Your task to perform on an android device: Open Google Chrome and click the shortcut for Amazon.com Image 0: 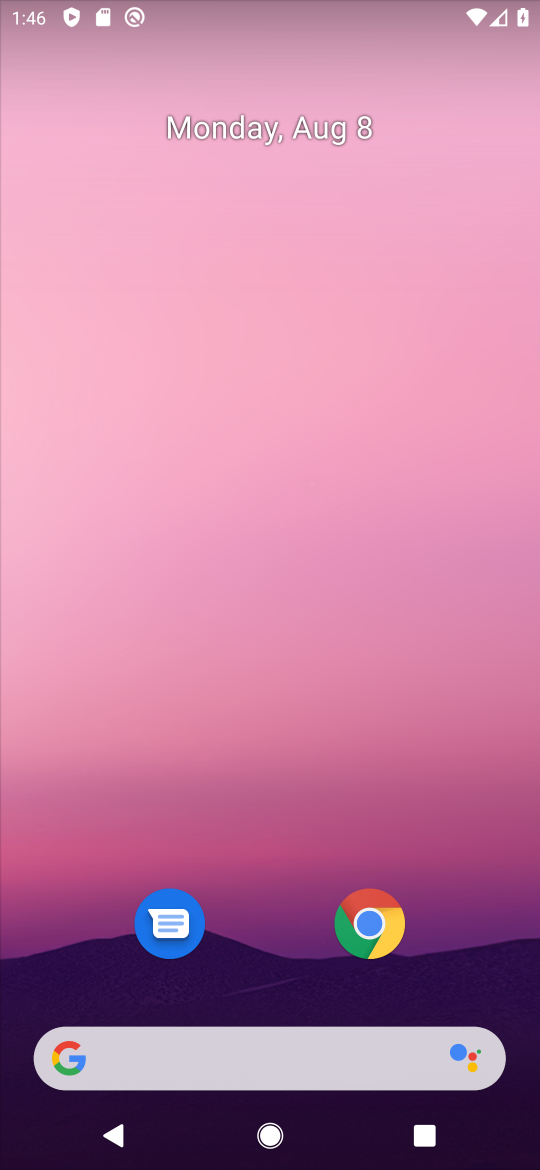
Step 0: drag from (319, 716) to (185, 55)
Your task to perform on an android device: Open Google Chrome and click the shortcut for Amazon.com Image 1: 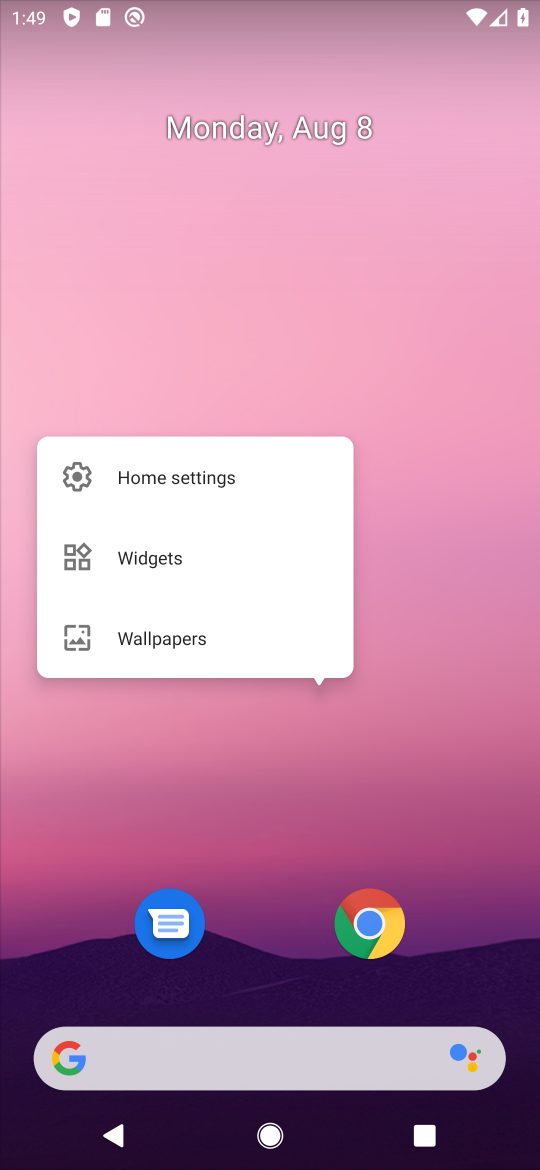
Step 1: click (387, 725)
Your task to perform on an android device: Open Google Chrome and click the shortcut for Amazon.com Image 2: 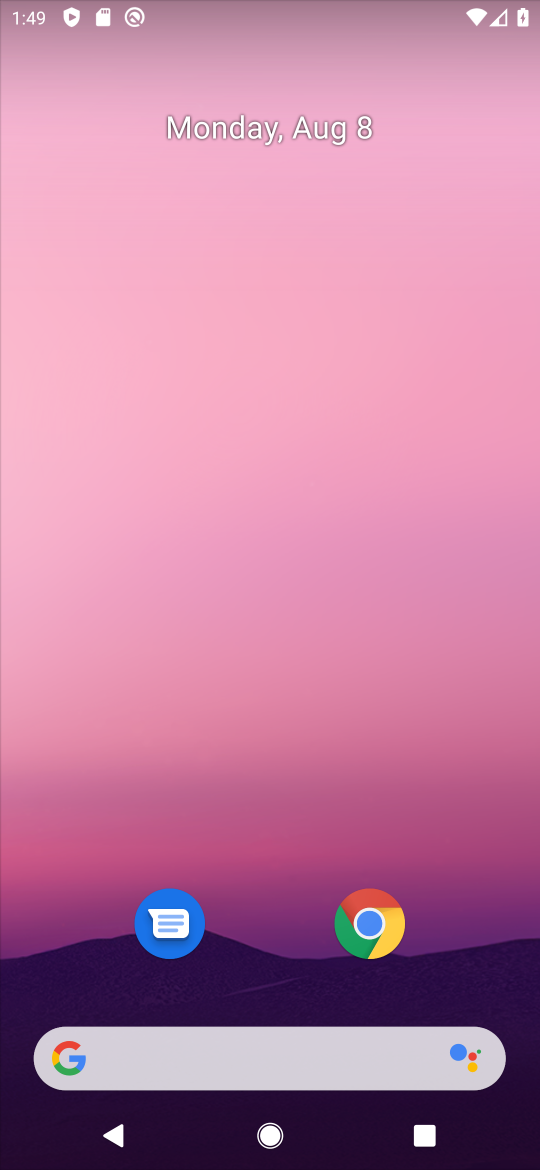
Step 2: drag from (285, 704) to (256, 244)
Your task to perform on an android device: Open Google Chrome and click the shortcut for Amazon.com Image 3: 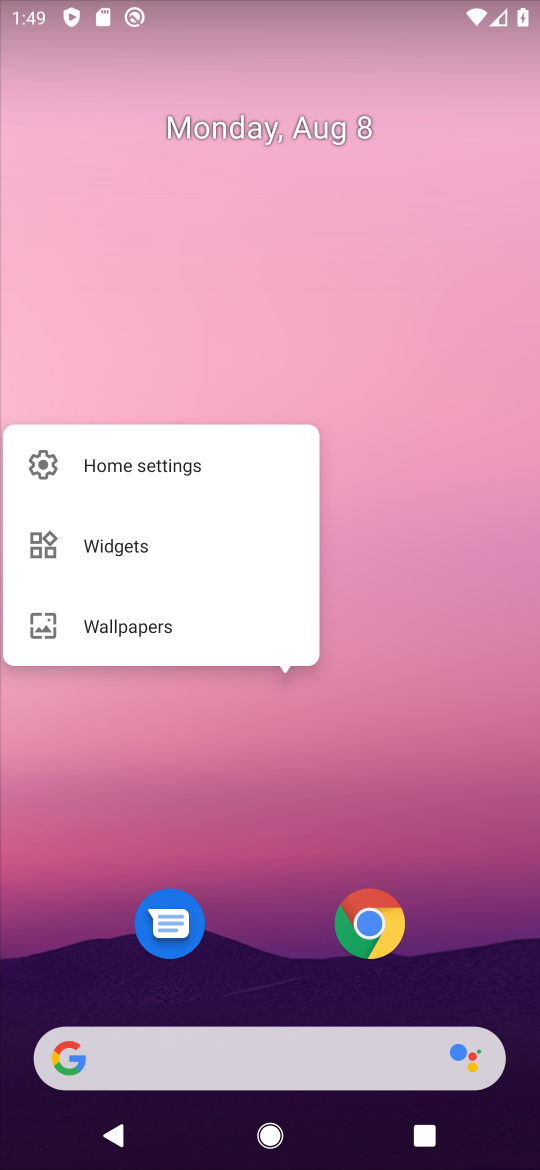
Step 3: click (421, 513)
Your task to perform on an android device: Open Google Chrome and click the shortcut for Amazon.com Image 4: 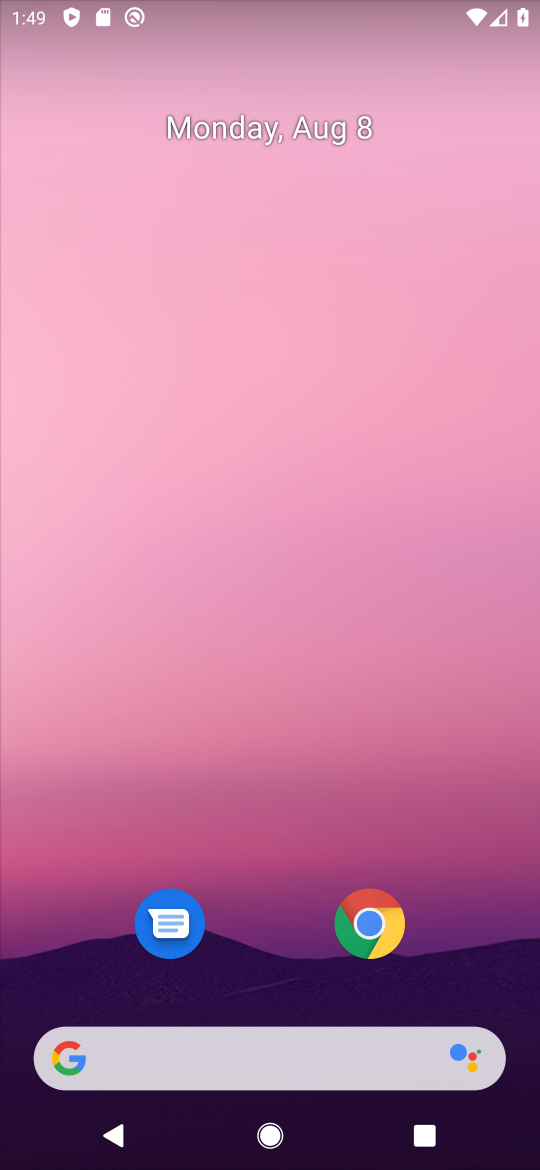
Step 4: drag from (291, 621) to (361, 106)
Your task to perform on an android device: Open Google Chrome and click the shortcut for Amazon.com Image 5: 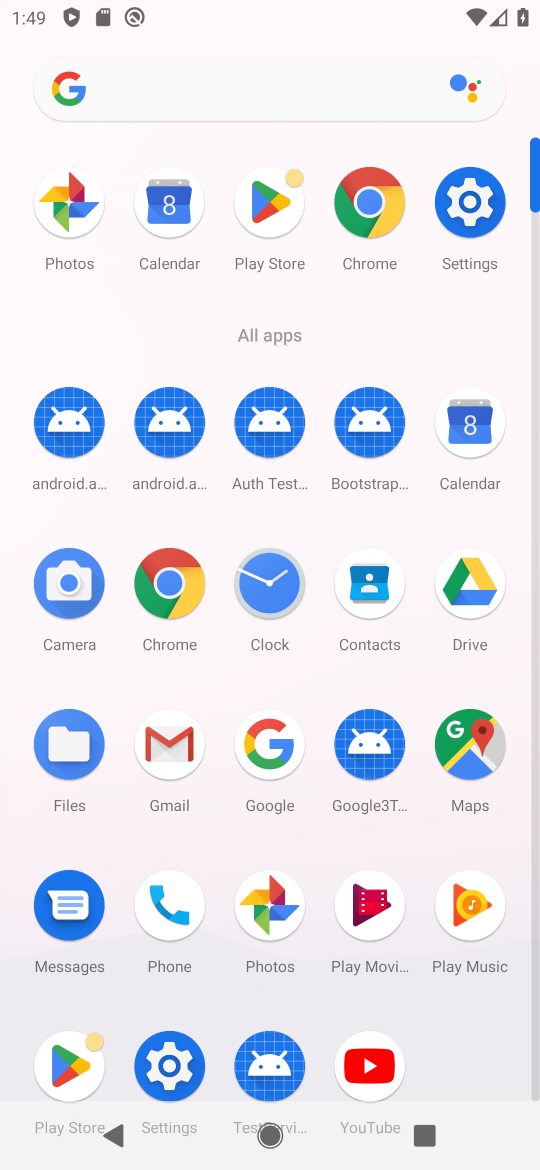
Step 5: click (401, 208)
Your task to perform on an android device: Open Google Chrome and click the shortcut for Amazon.com Image 6: 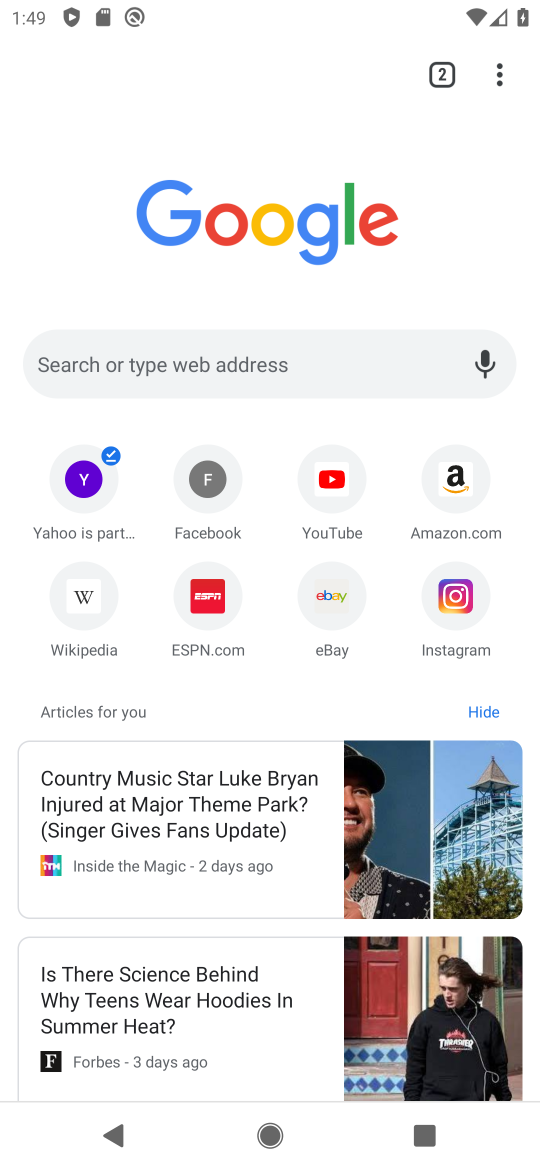
Step 6: click (454, 476)
Your task to perform on an android device: Open Google Chrome and click the shortcut for Amazon.com Image 7: 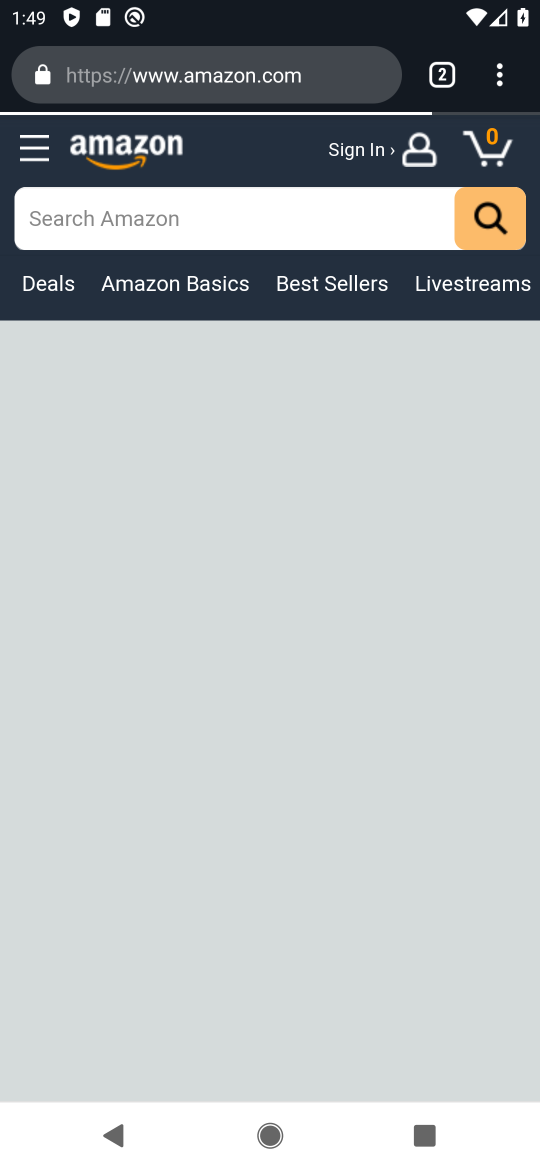
Step 7: task complete